Your task to perform on an android device: change the clock display to digital Image 0: 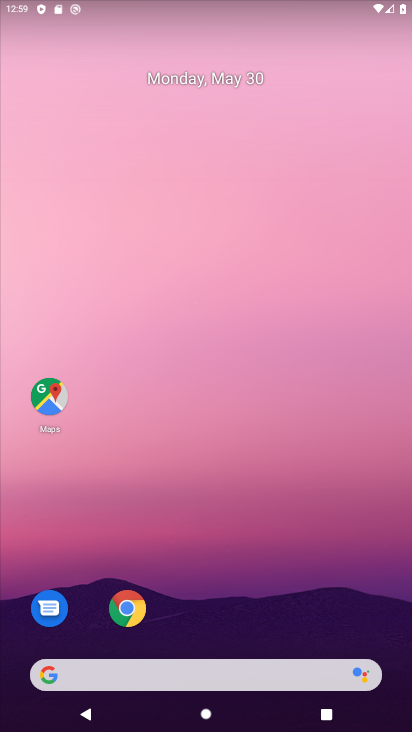
Step 0: drag from (199, 625) to (301, 113)
Your task to perform on an android device: change the clock display to digital Image 1: 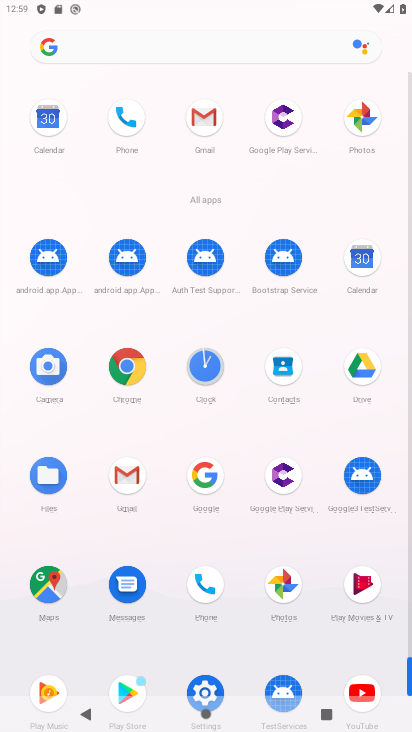
Step 1: click (212, 367)
Your task to perform on an android device: change the clock display to digital Image 2: 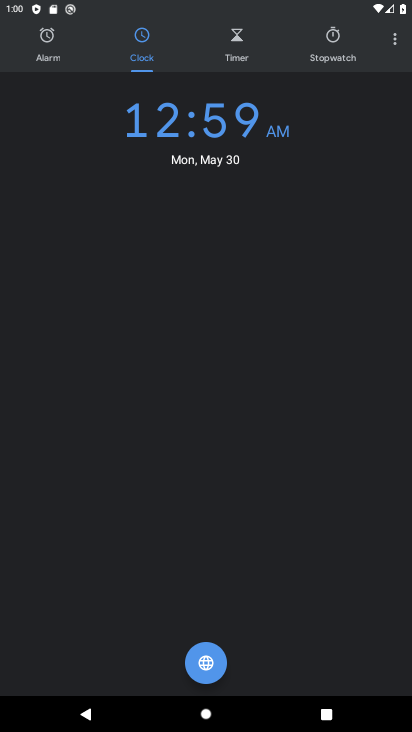
Step 2: click (397, 43)
Your task to perform on an android device: change the clock display to digital Image 3: 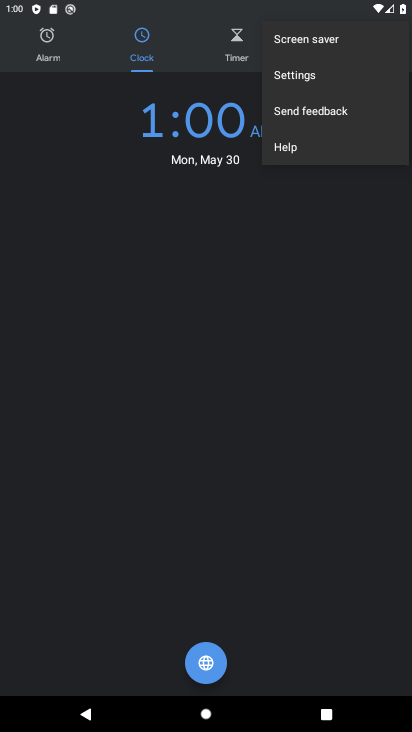
Step 3: click (292, 87)
Your task to perform on an android device: change the clock display to digital Image 4: 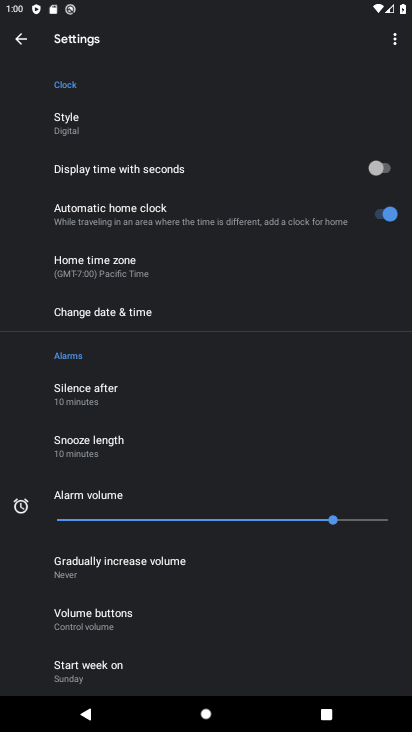
Step 4: click (57, 138)
Your task to perform on an android device: change the clock display to digital Image 5: 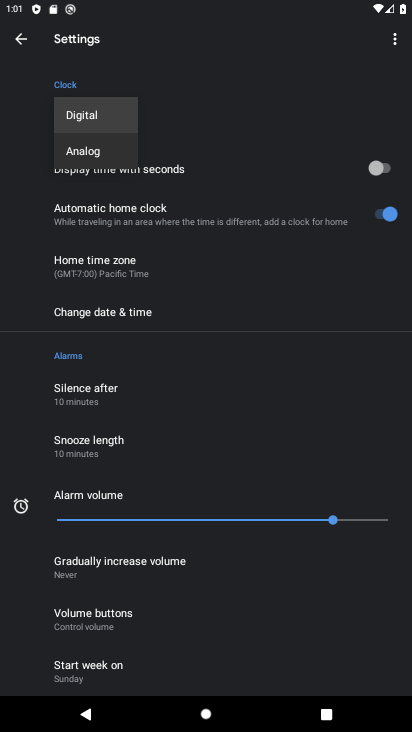
Step 5: task complete